Your task to perform on an android device: delete browsing data in the chrome app Image 0: 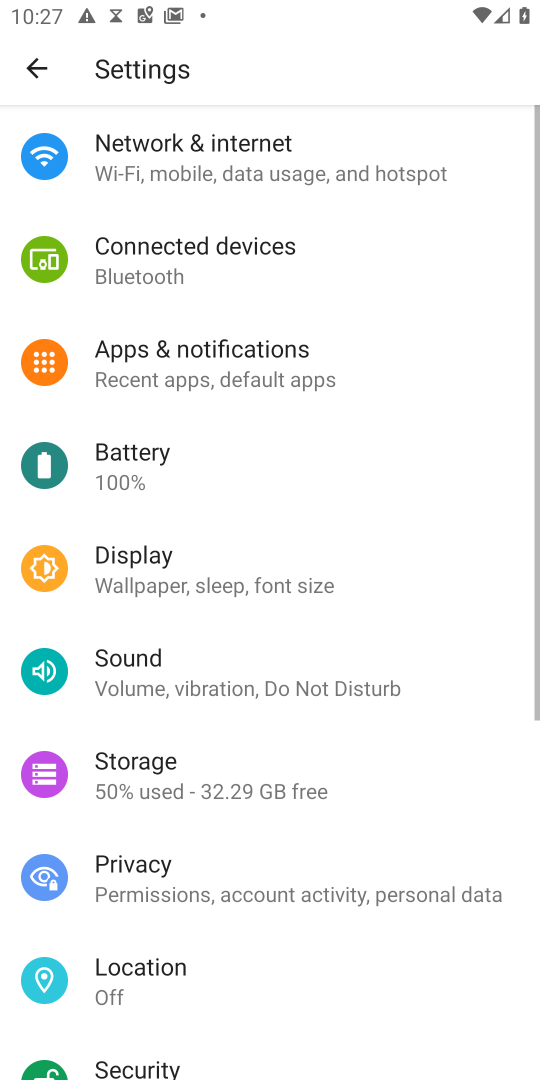
Step 0: press home button
Your task to perform on an android device: delete browsing data in the chrome app Image 1: 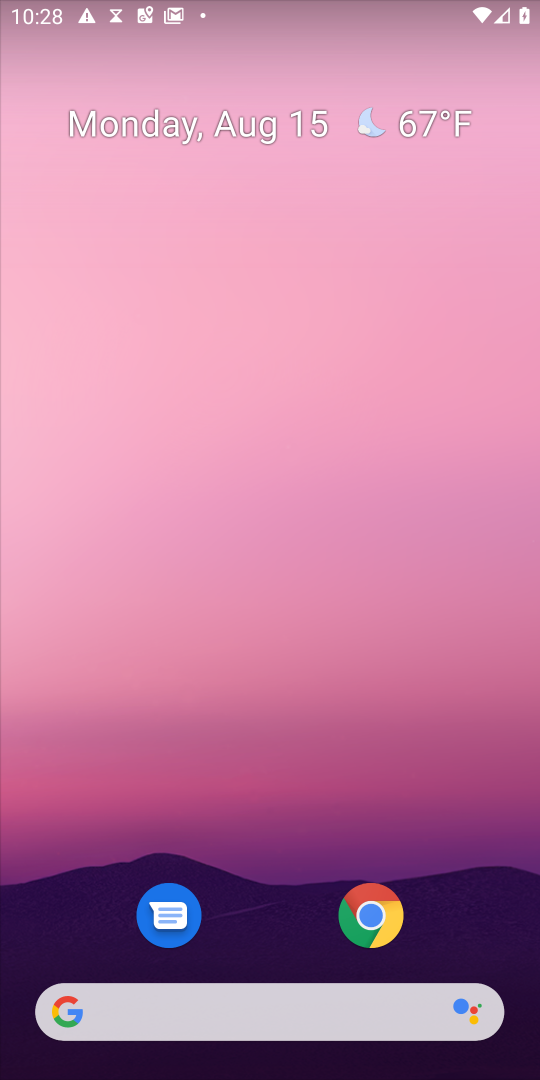
Step 1: press home button
Your task to perform on an android device: delete browsing data in the chrome app Image 2: 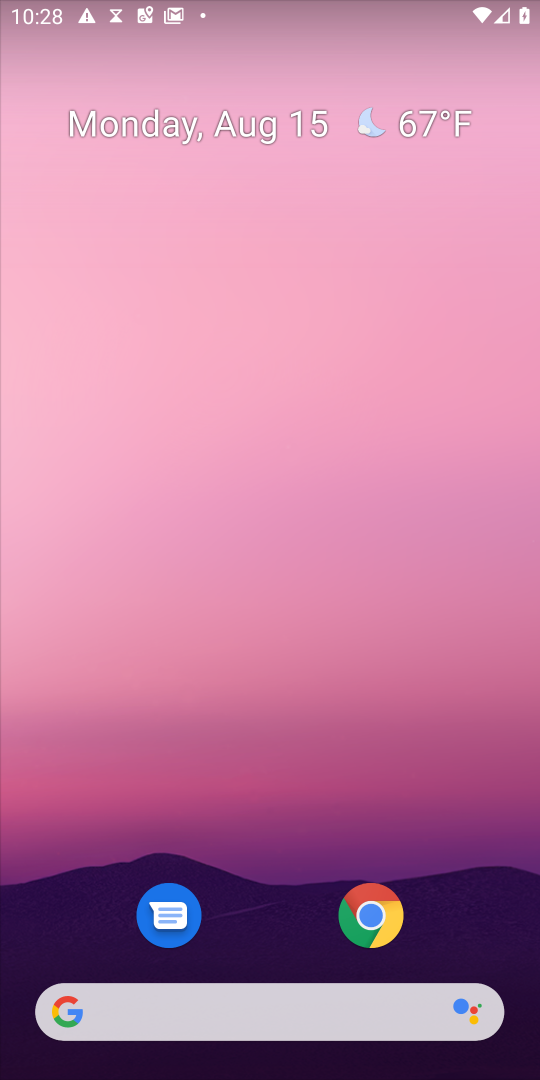
Step 2: click (353, 915)
Your task to perform on an android device: delete browsing data in the chrome app Image 3: 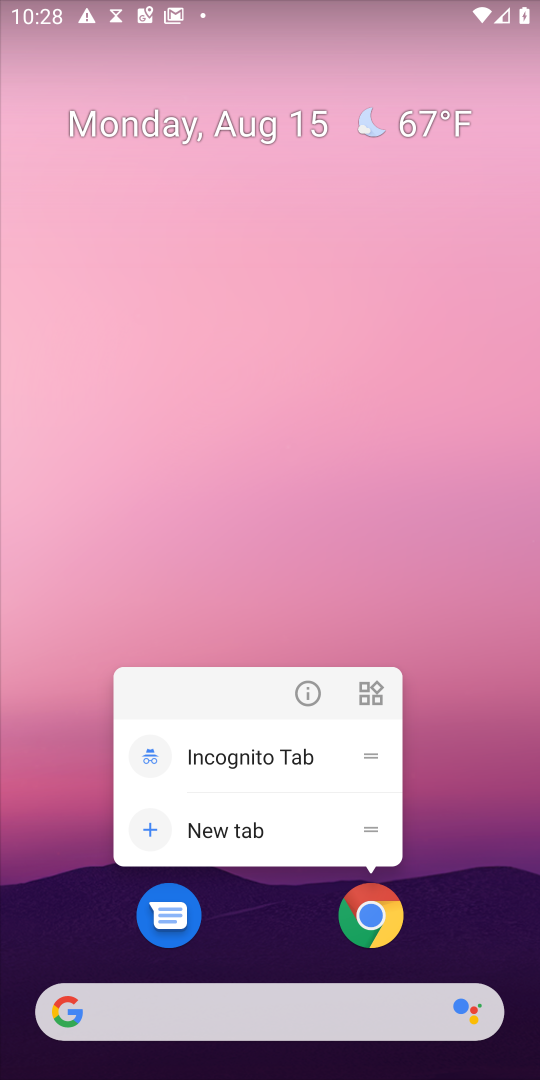
Step 3: click (353, 915)
Your task to perform on an android device: delete browsing data in the chrome app Image 4: 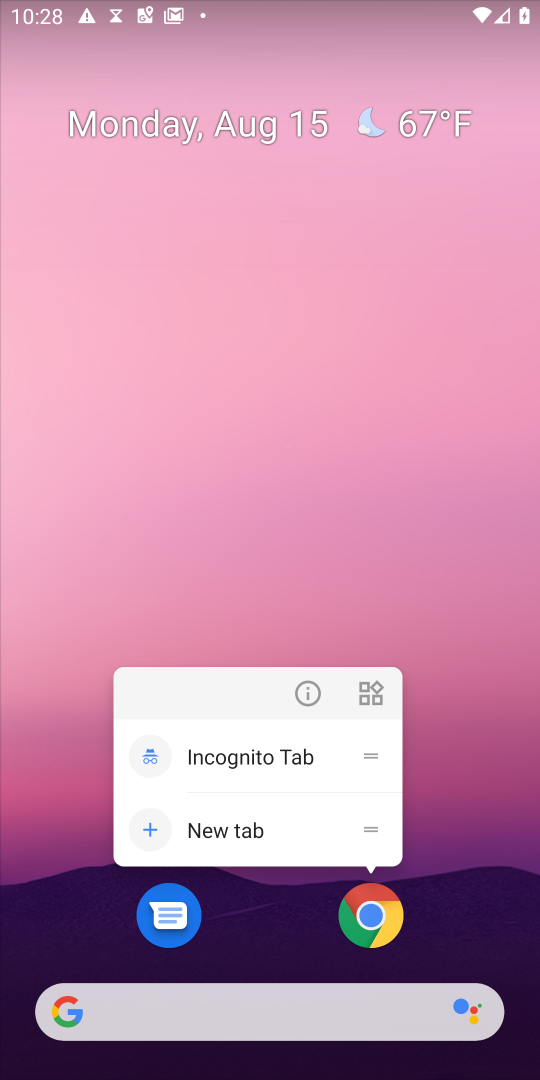
Step 4: drag from (494, 636) to (478, 152)
Your task to perform on an android device: delete browsing data in the chrome app Image 5: 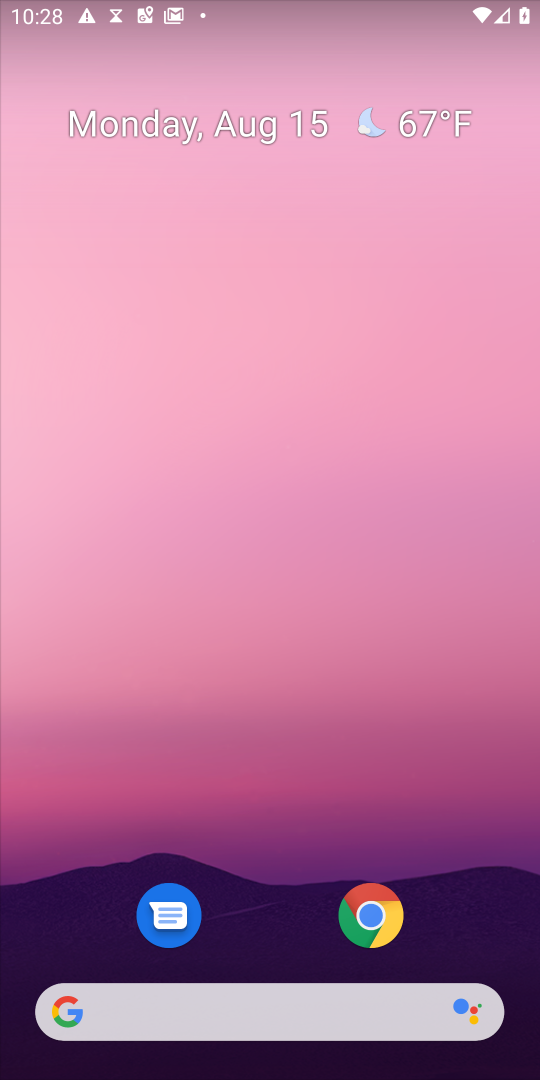
Step 5: drag from (262, 813) to (260, 244)
Your task to perform on an android device: delete browsing data in the chrome app Image 6: 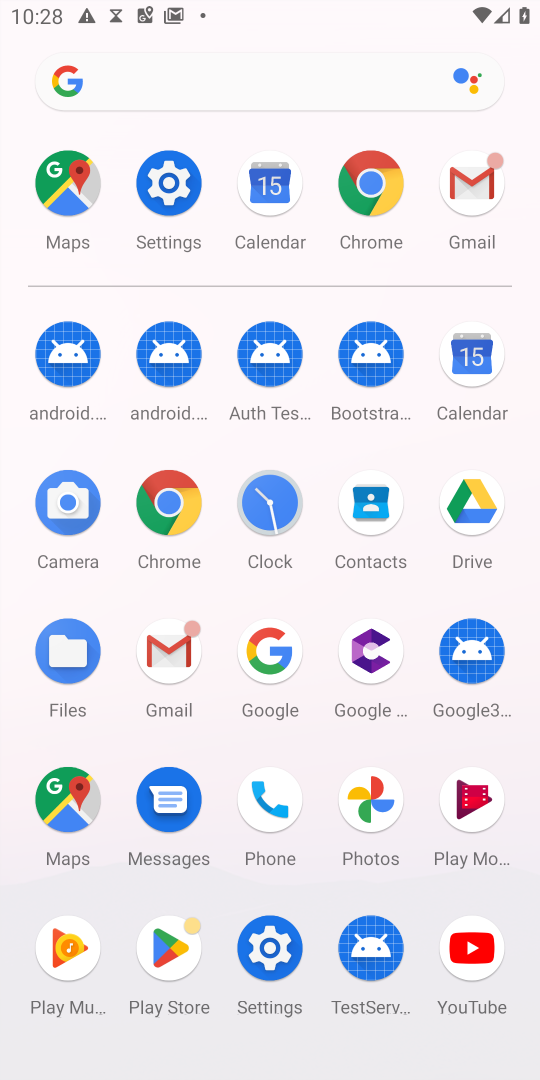
Step 6: click (362, 190)
Your task to perform on an android device: delete browsing data in the chrome app Image 7: 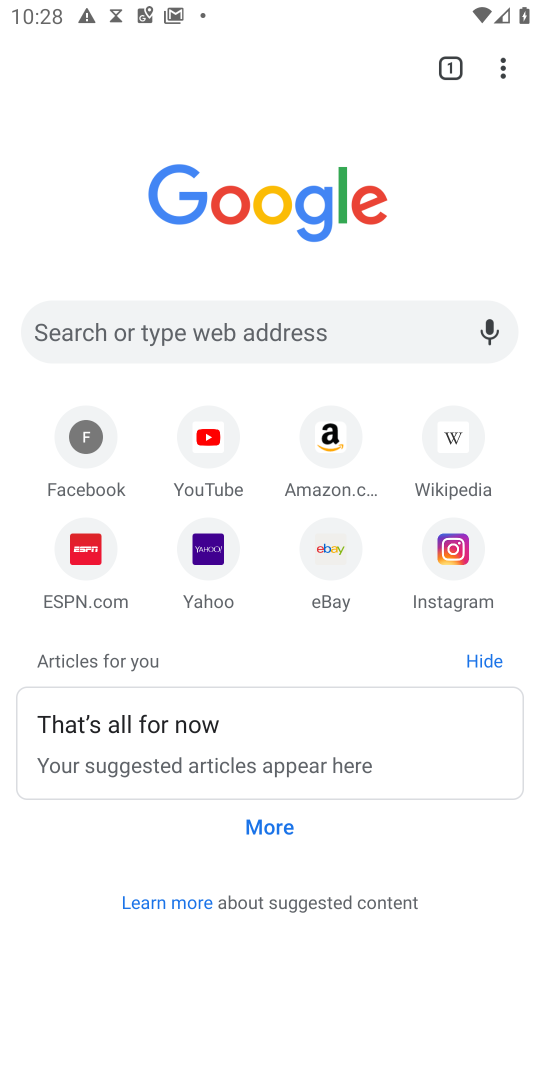
Step 7: task complete